Your task to perform on an android device: Open calendar and show me the third week of next month Image 0: 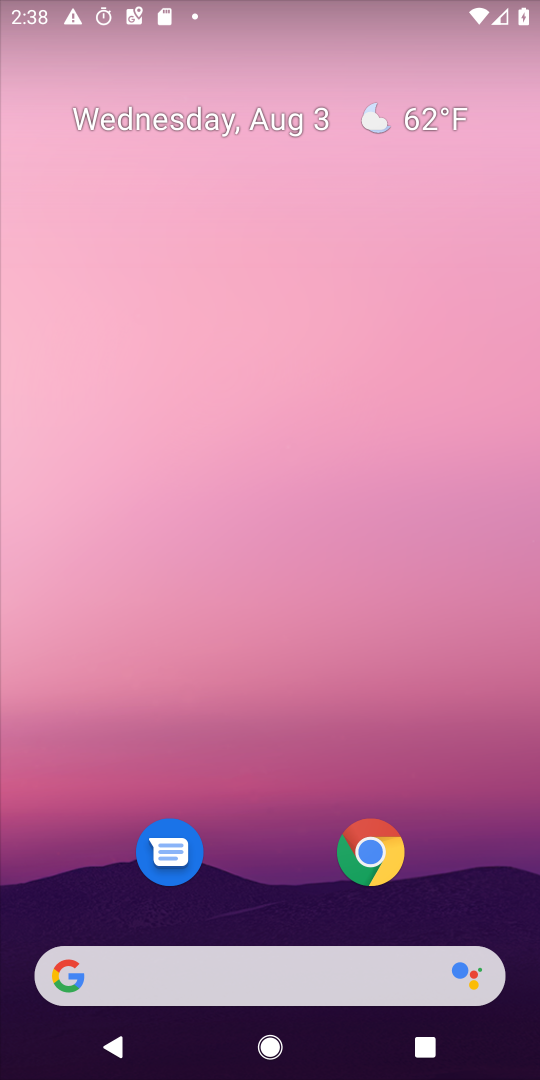
Step 0: drag from (455, 738) to (344, 0)
Your task to perform on an android device: Open calendar and show me the third week of next month Image 1: 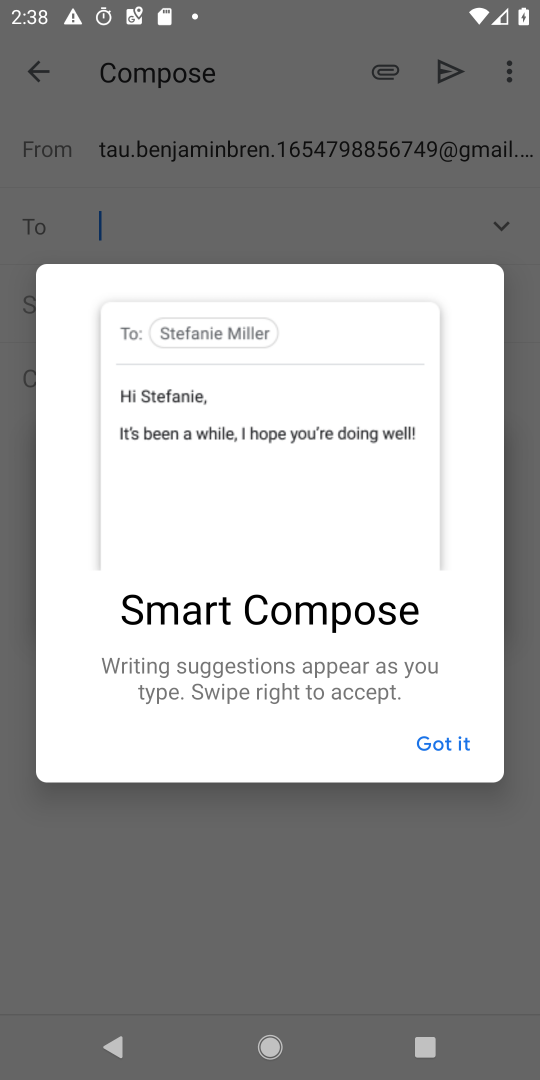
Step 1: press back button
Your task to perform on an android device: Open calendar and show me the third week of next month Image 2: 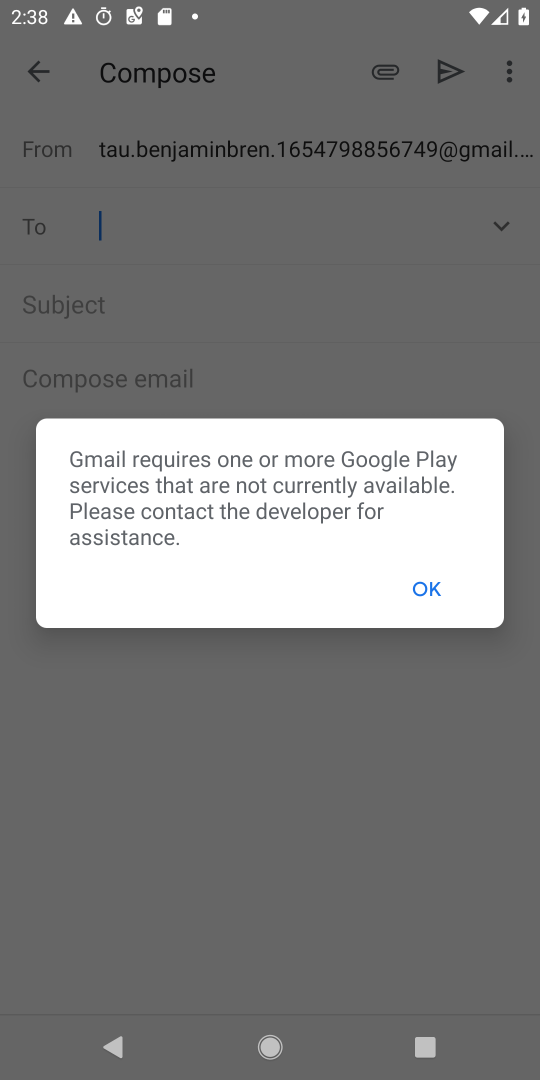
Step 2: press home button
Your task to perform on an android device: Open calendar and show me the third week of next month Image 3: 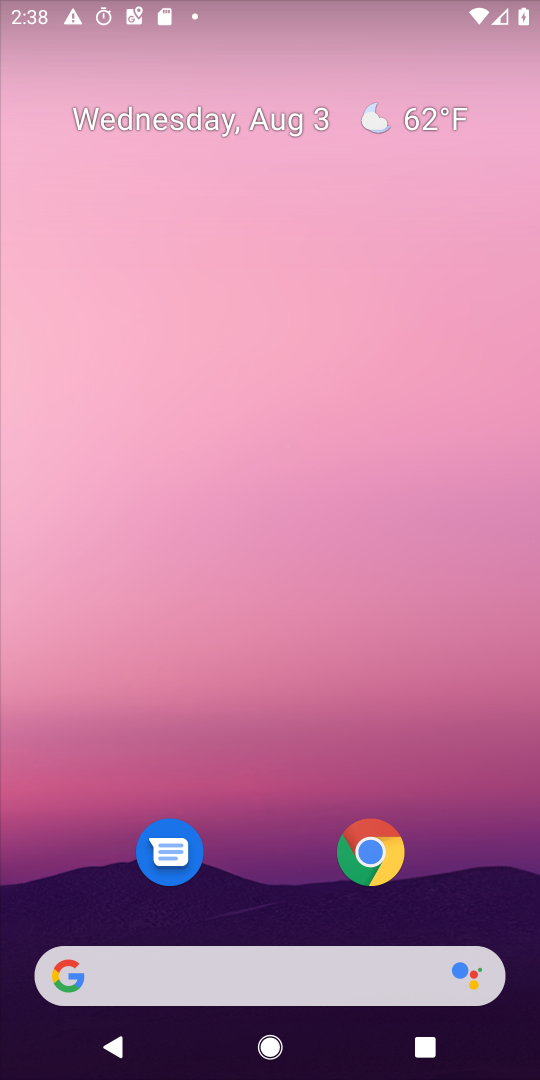
Step 3: drag from (479, 883) to (247, 11)
Your task to perform on an android device: Open calendar and show me the third week of next month Image 4: 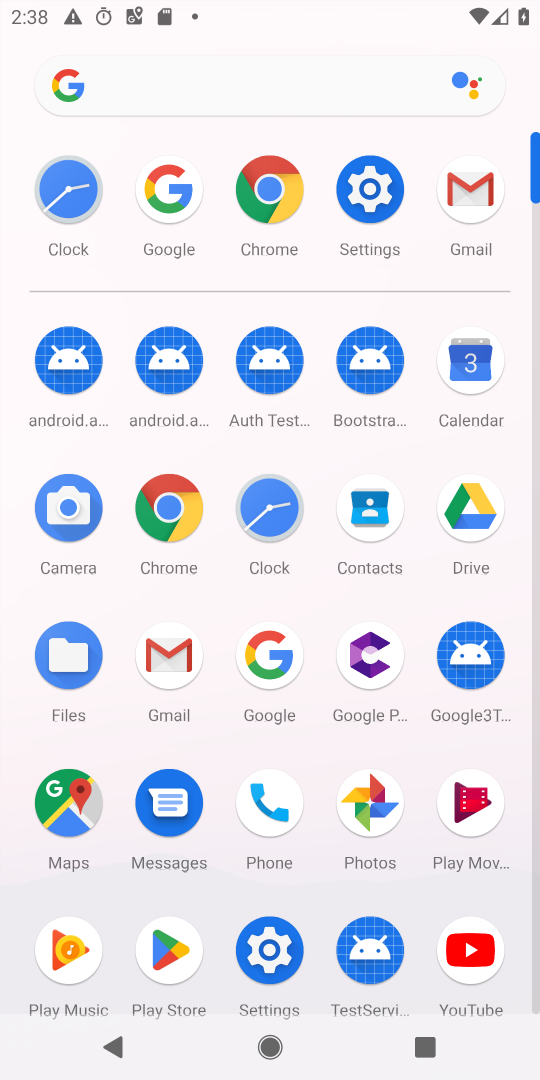
Step 4: click (478, 373)
Your task to perform on an android device: Open calendar and show me the third week of next month Image 5: 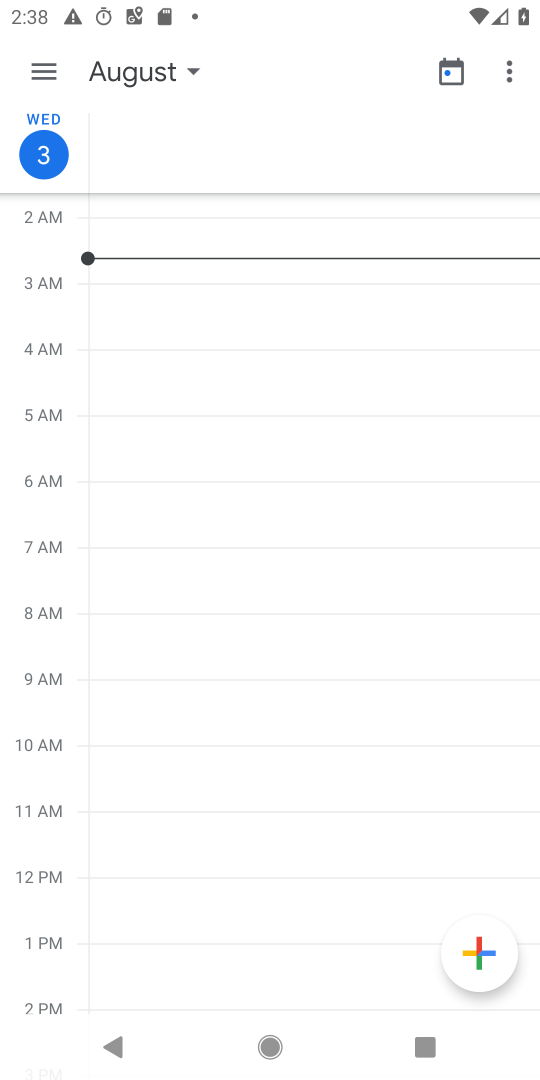
Step 5: click (156, 72)
Your task to perform on an android device: Open calendar and show me the third week of next month Image 6: 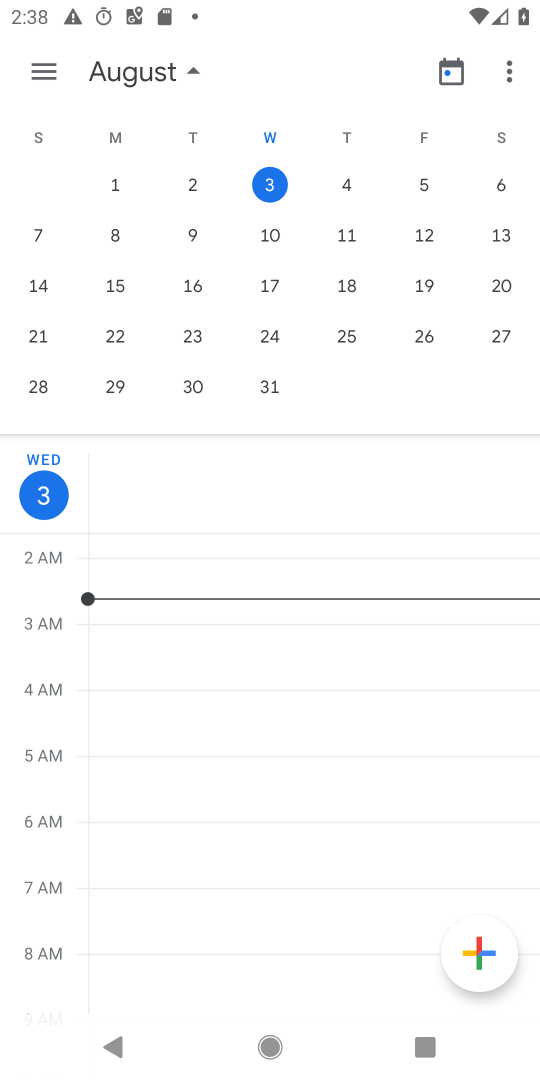
Step 6: drag from (476, 273) to (3, 231)
Your task to perform on an android device: Open calendar and show me the third week of next month Image 7: 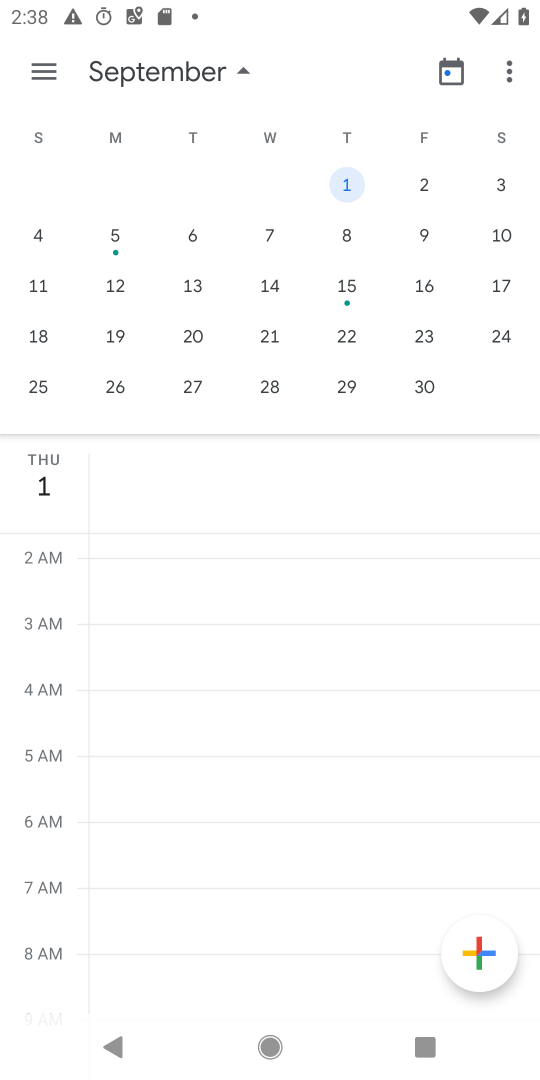
Step 7: click (46, 331)
Your task to perform on an android device: Open calendar and show me the third week of next month Image 8: 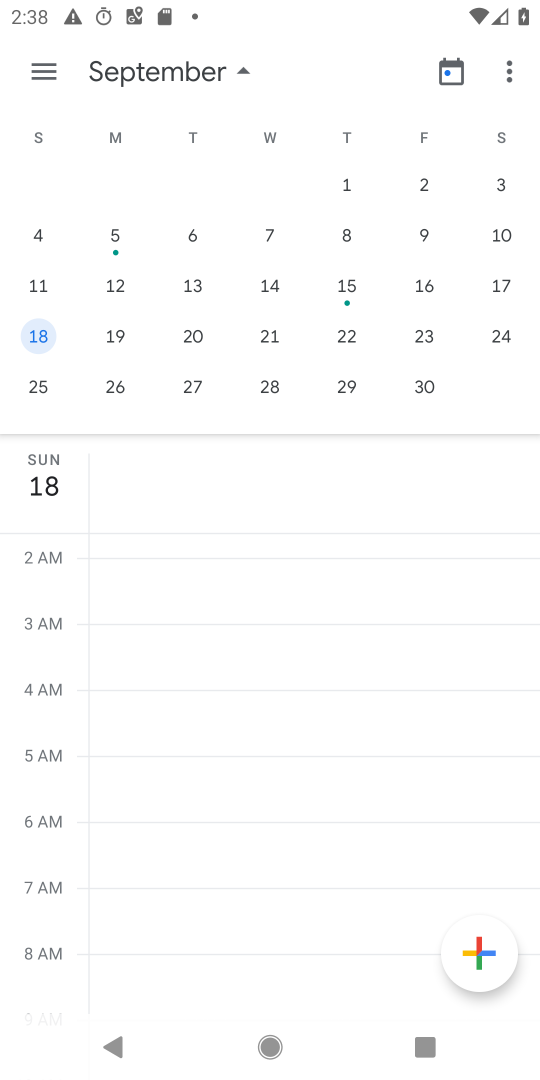
Step 8: task complete